Your task to perform on an android device: turn off notifications settings in the gmail app Image 0: 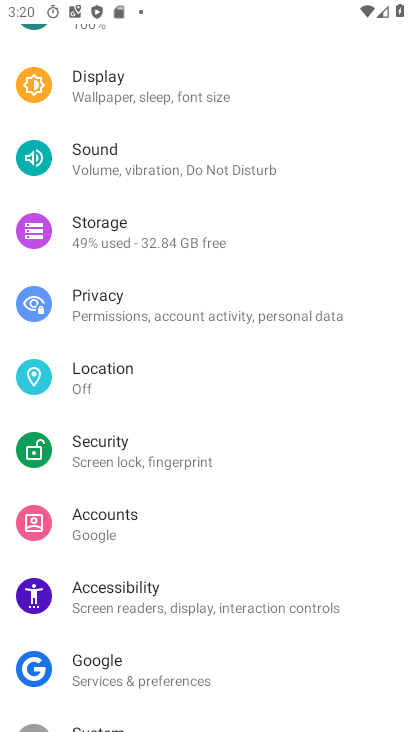
Step 0: press home button
Your task to perform on an android device: turn off notifications settings in the gmail app Image 1: 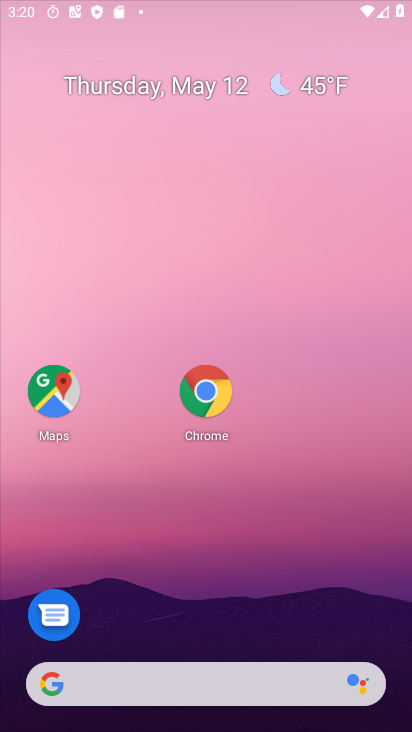
Step 1: drag from (215, 574) to (219, 149)
Your task to perform on an android device: turn off notifications settings in the gmail app Image 2: 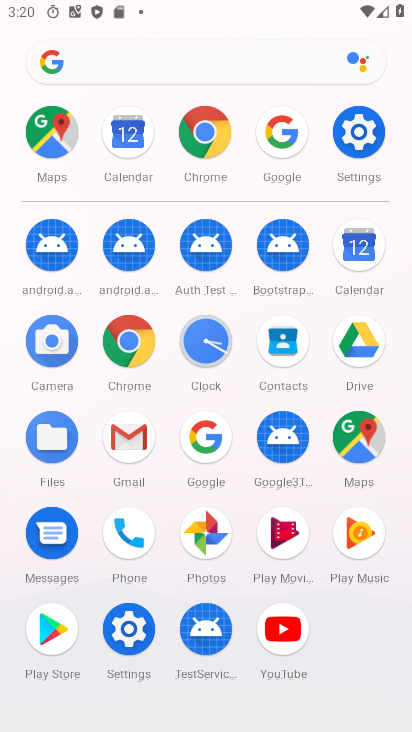
Step 2: click (361, 130)
Your task to perform on an android device: turn off notifications settings in the gmail app Image 3: 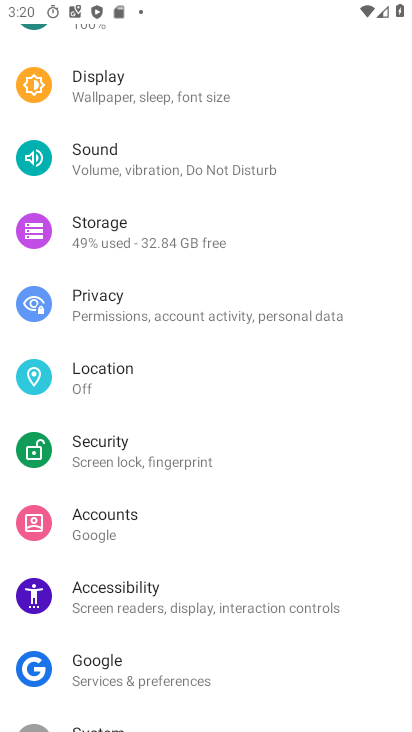
Step 3: drag from (158, 159) to (187, 407)
Your task to perform on an android device: turn off notifications settings in the gmail app Image 4: 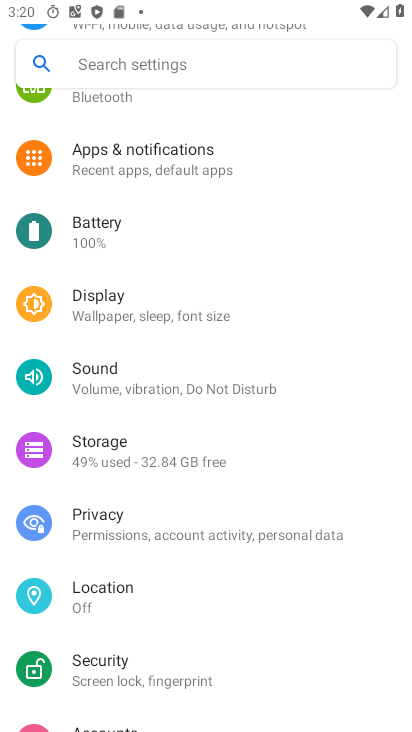
Step 4: click (150, 158)
Your task to perform on an android device: turn off notifications settings in the gmail app Image 5: 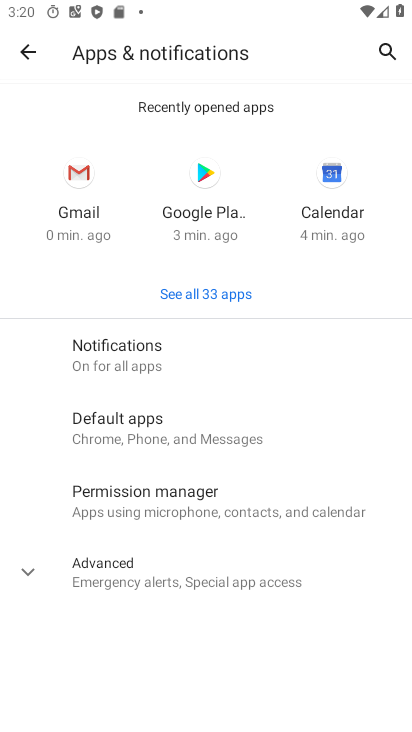
Step 5: click (125, 362)
Your task to perform on an android device: turn off notifications settings in the gmail app Image 6: 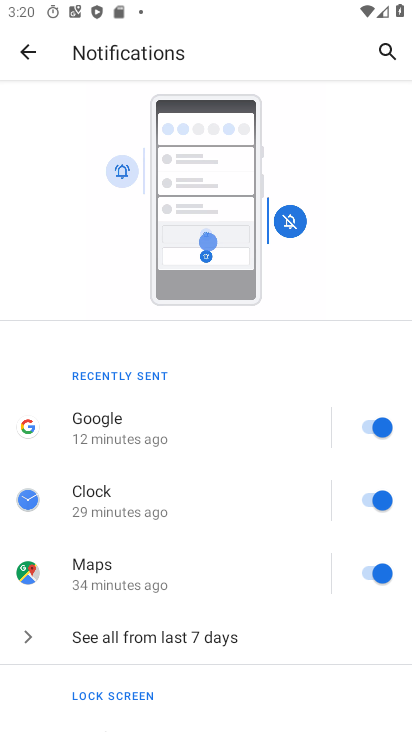
Step 6: drag from (167, 544) to (165, 278)
Your task to perform on an android device: turn off notifications settings in the gmail app Image 7: 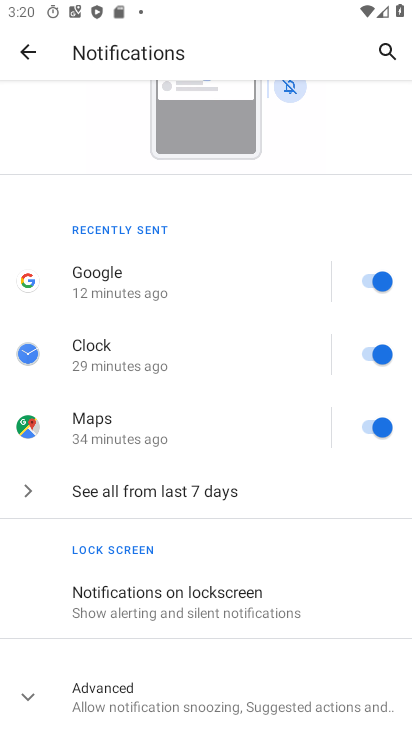
Step 7: click (121, 598)
Your task to perform on an android device: turn off notifications settings in the gmail app Image 8: 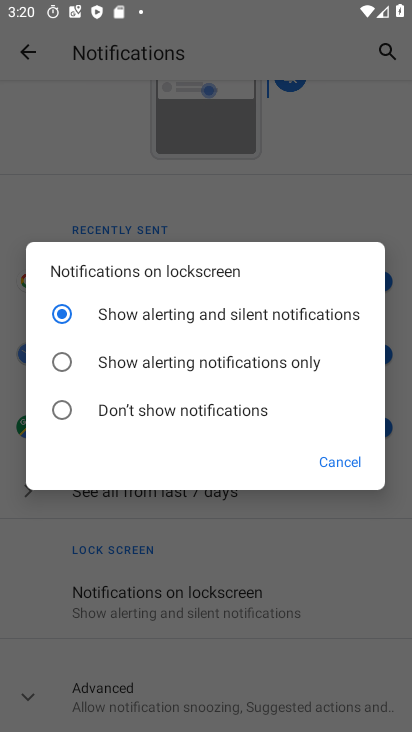
Step 8: click (66, 409)
Your task to perform on an android device: turn off notifications settings in the gmail app Image 9: 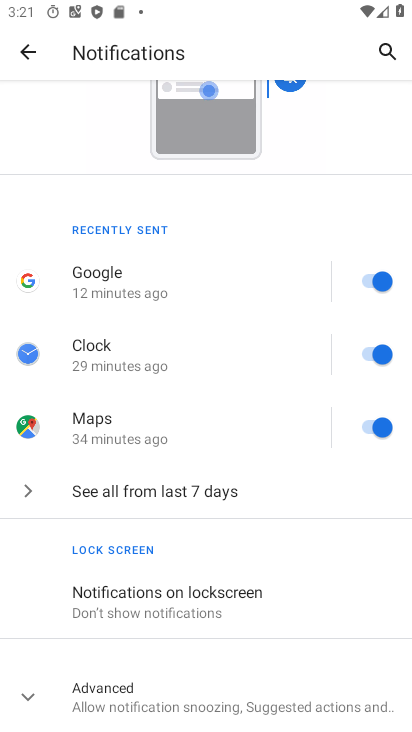
Step 9: task complete